Your task to perform on an android device: turn on improve location accuracy Image 0: 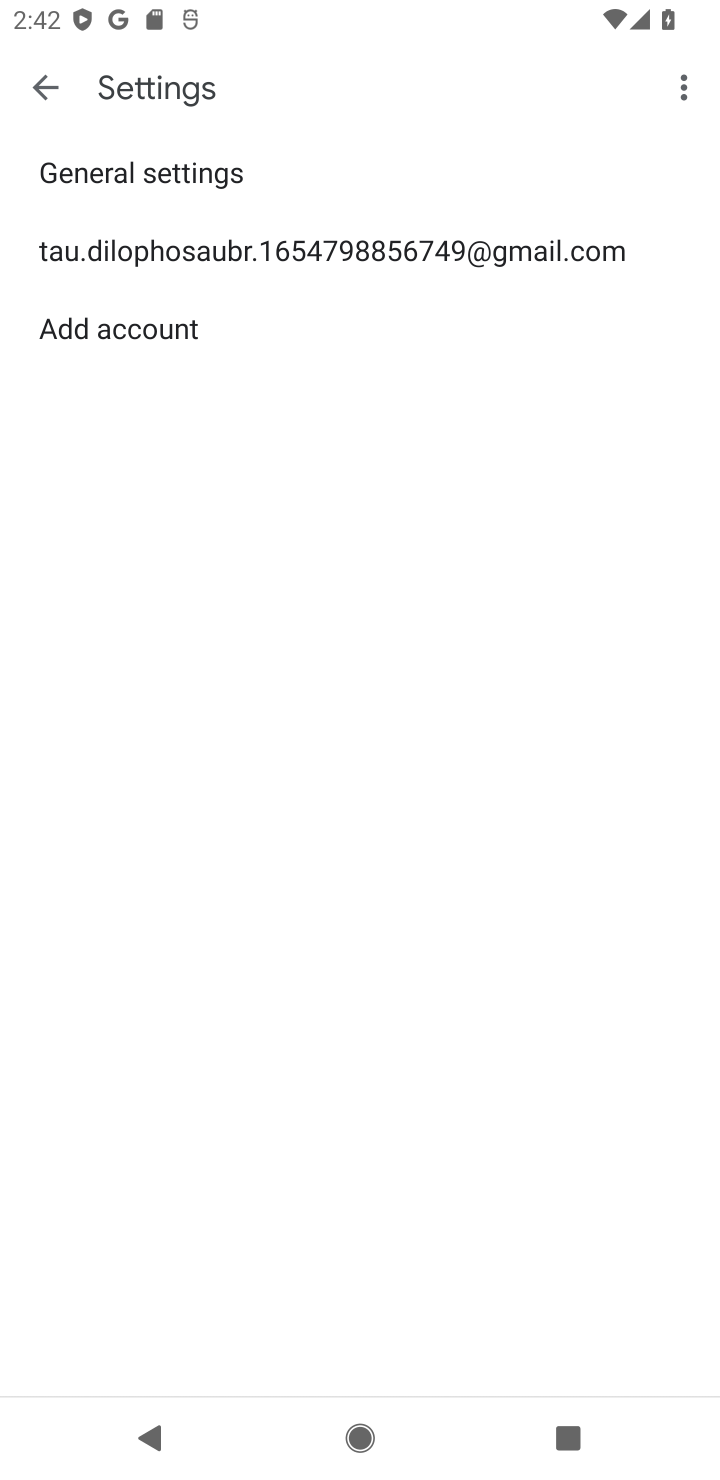
Step 0: press home button
Your task to perform on an android device: turn on improve location accuracy Image 1: 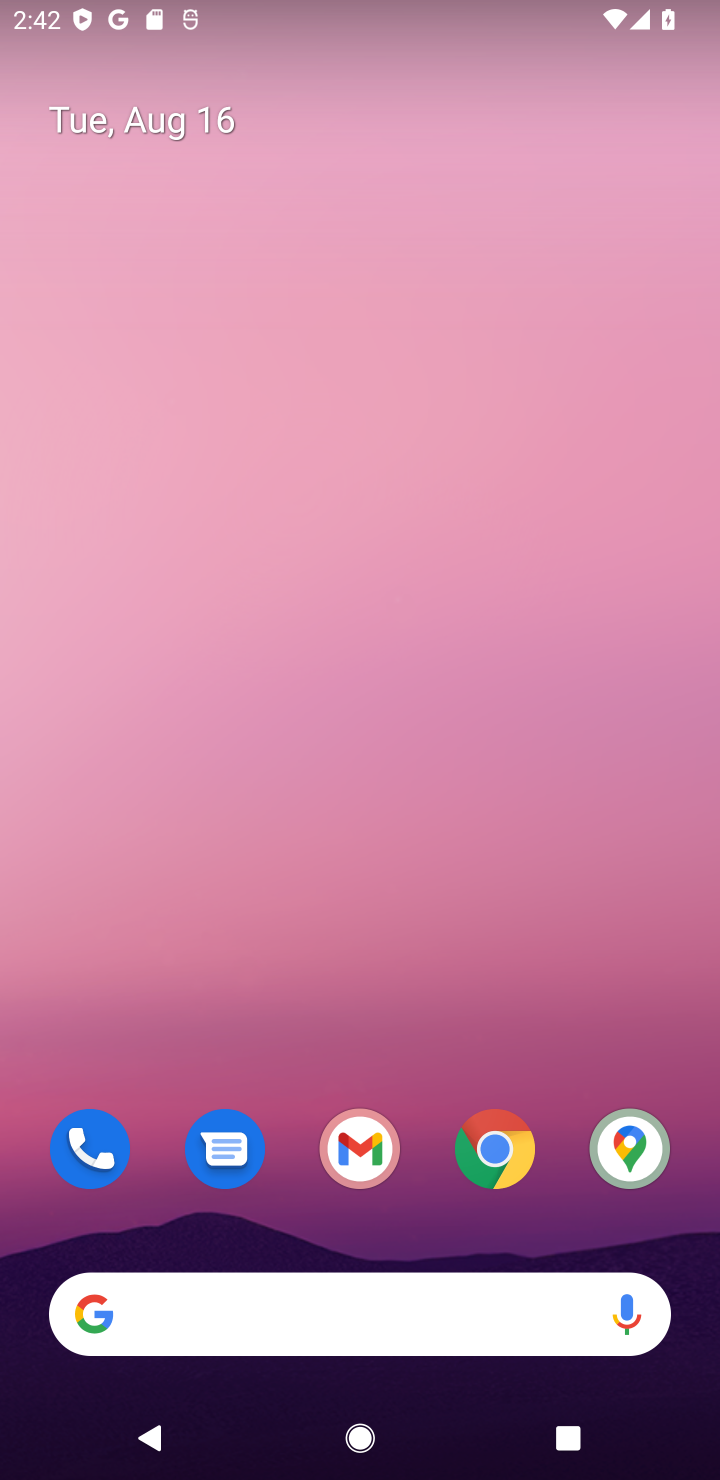
Step 1: drag from (411, 1020) to (468, 0)
Your task to perform on an android device: turn on improve location accuracy Image 2: 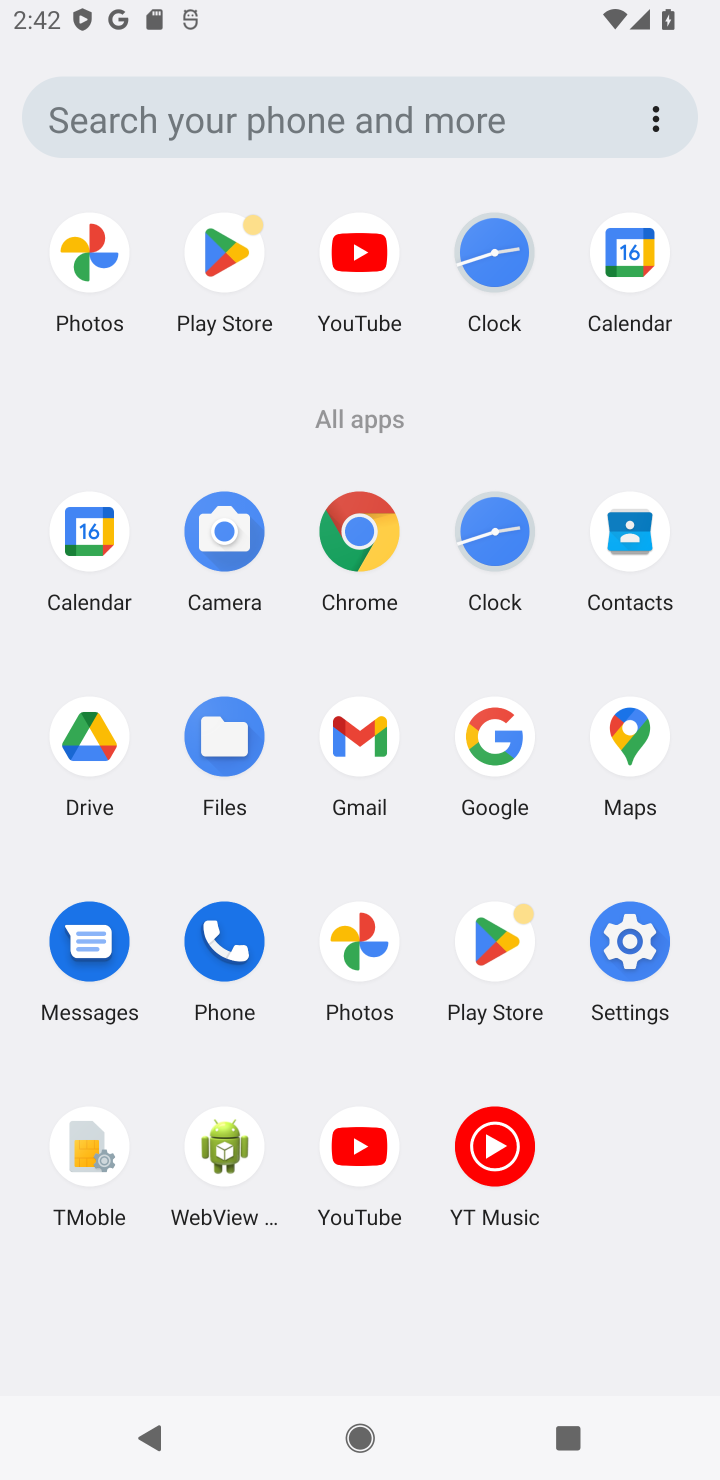
Step 2: click (635, 938)
Your task to perform on an android device: turn on improve location accuracy Image 3: 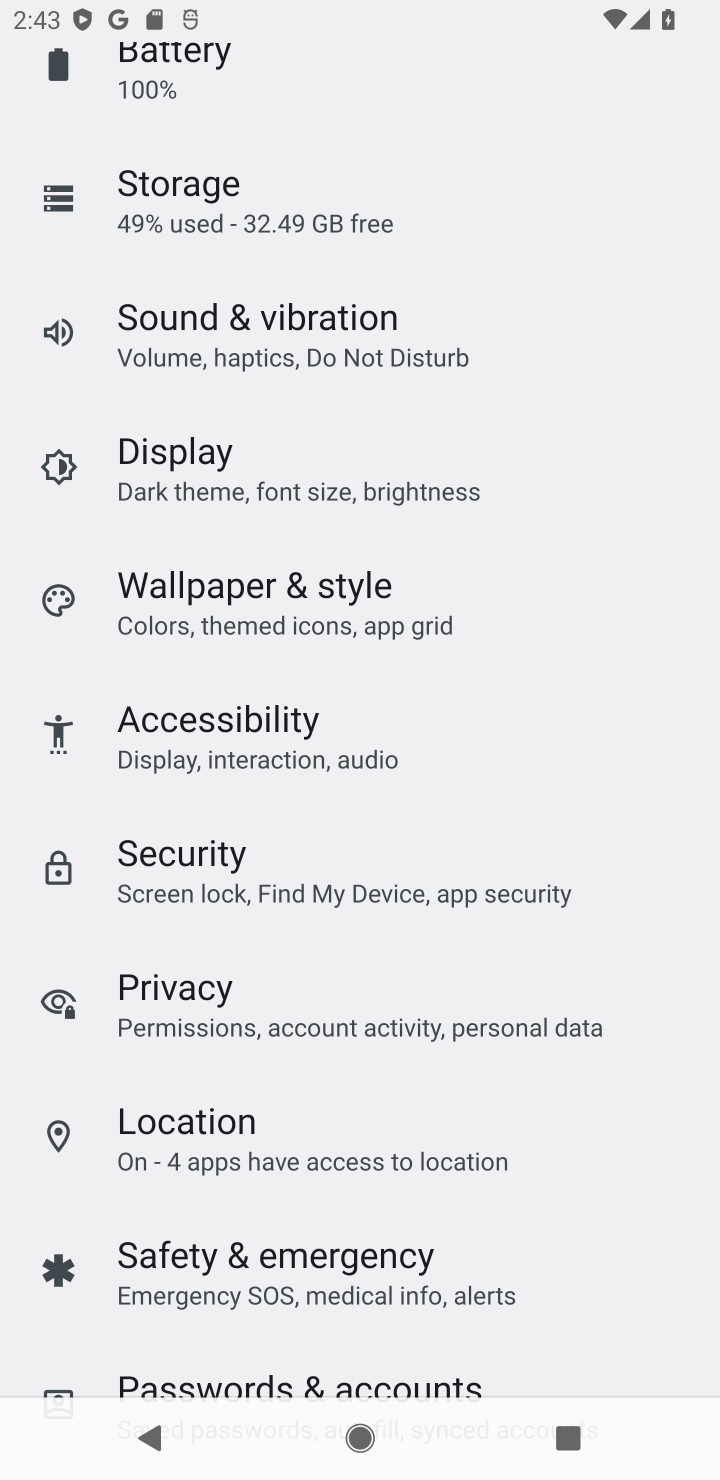
Step 3: click (360, 1144)
Your task to perform on an android device: turn on improve location accuracy Image 4: 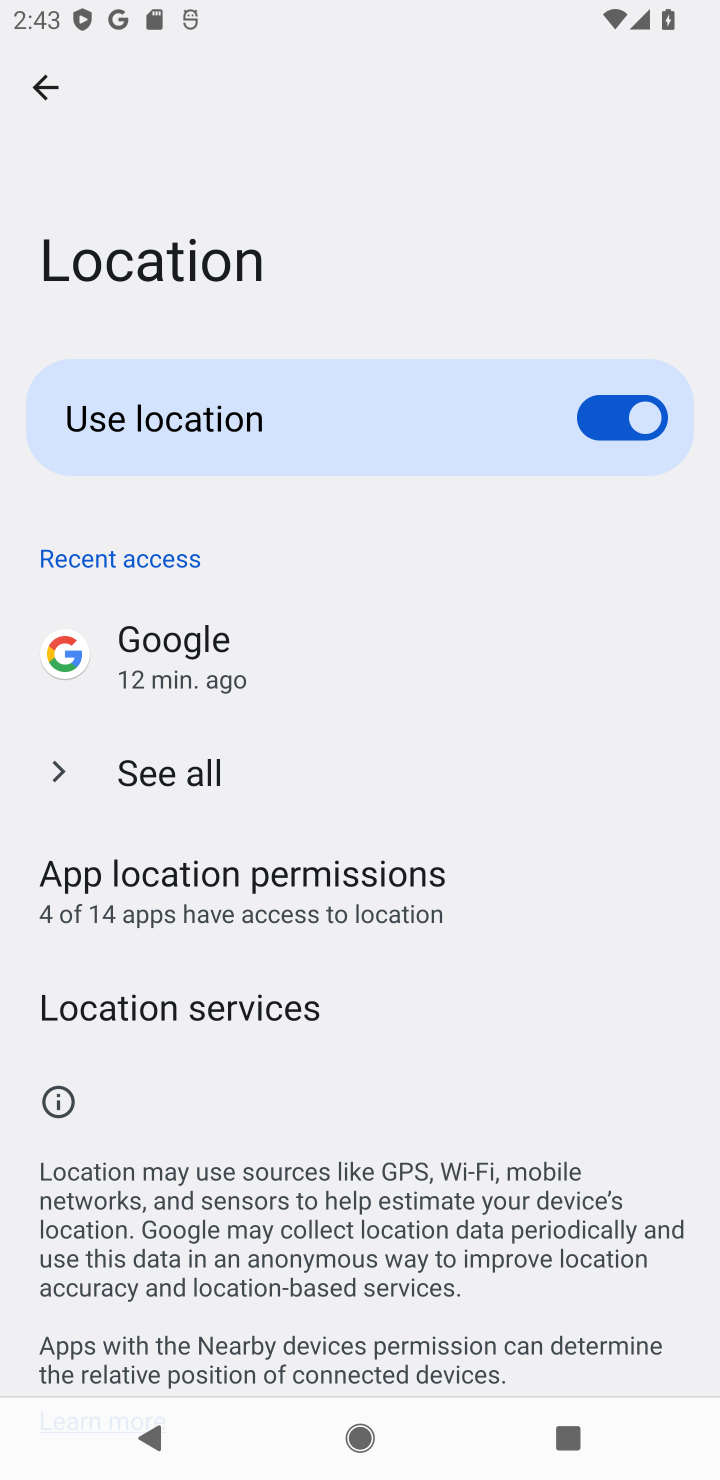
Step 4: click (290, 1000)
Your task to perform on an android device: turn on improve location accuracy Image 5: 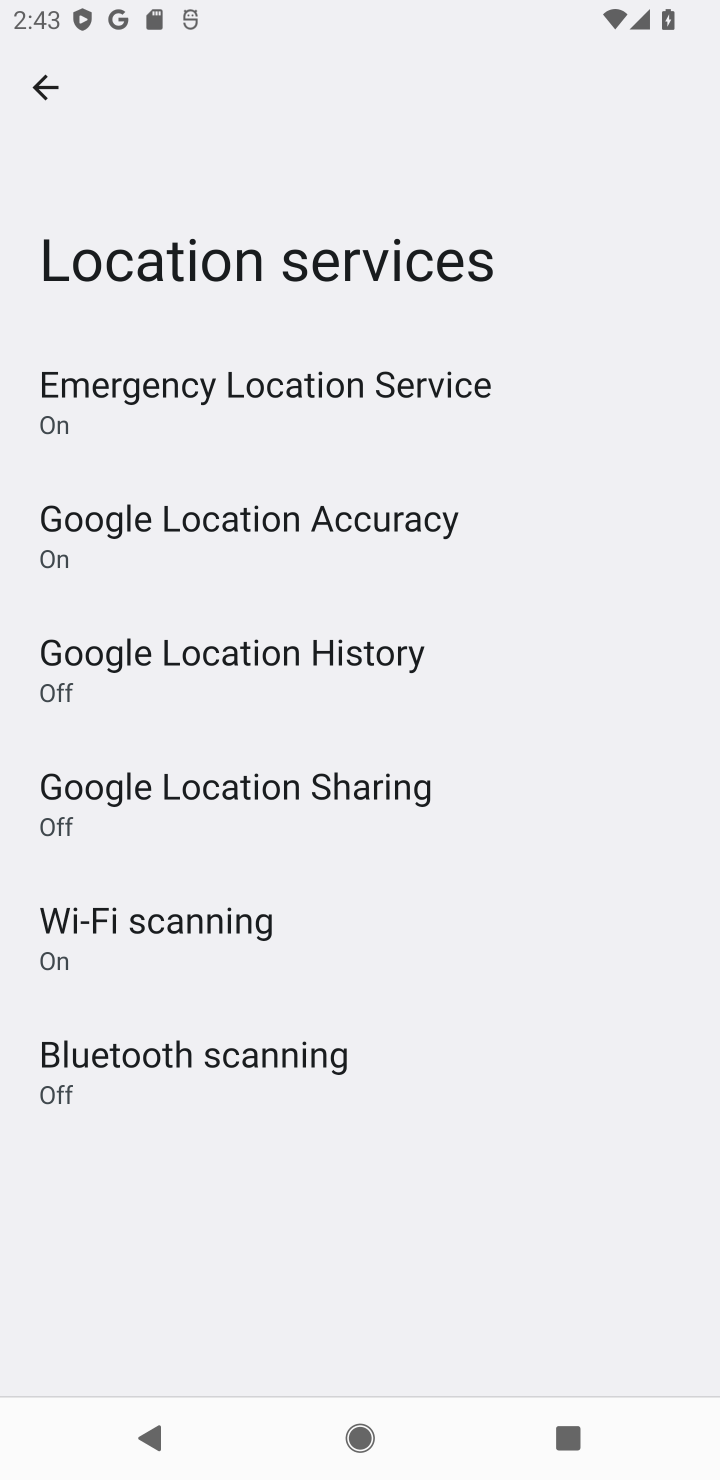
Step 5: click (328, 529)
Your task to perform on an android device: turn on improve location accuracy Image 6: 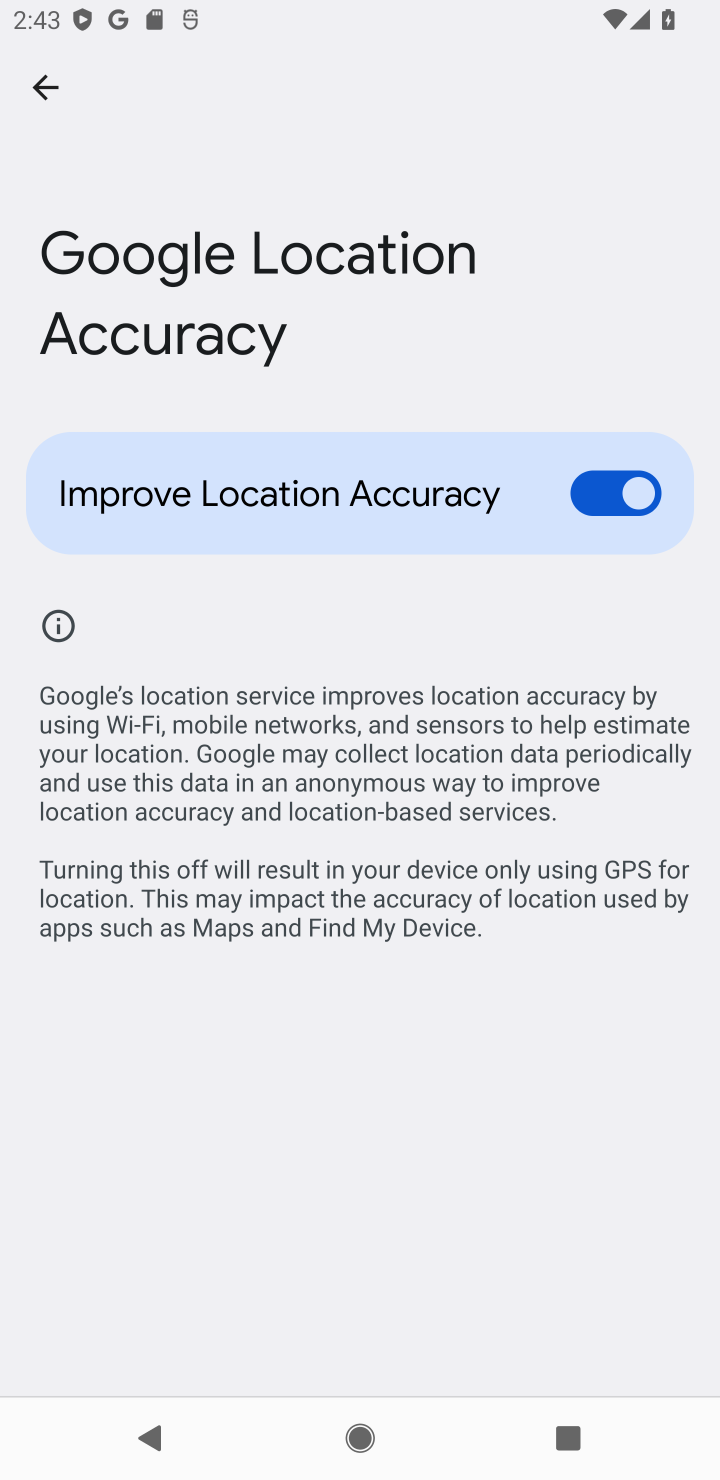
Step 6: task complete